Your task to perform on an android device: Is it going to rain tomorrow? Image 0: 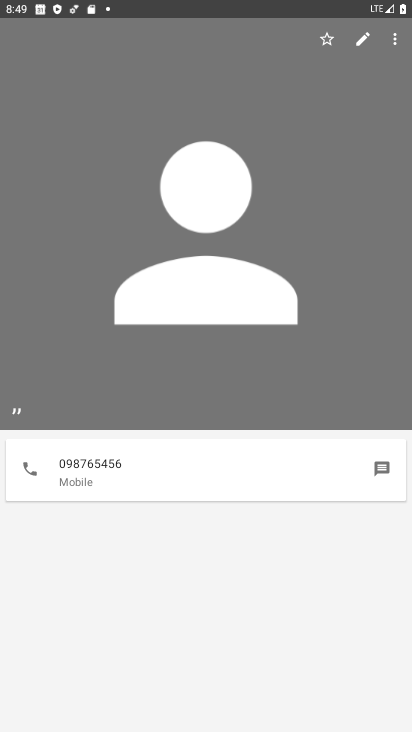
Step 0: press home button
Your task to perform on an android device: Is it going to rain tomorrow? Image 1: 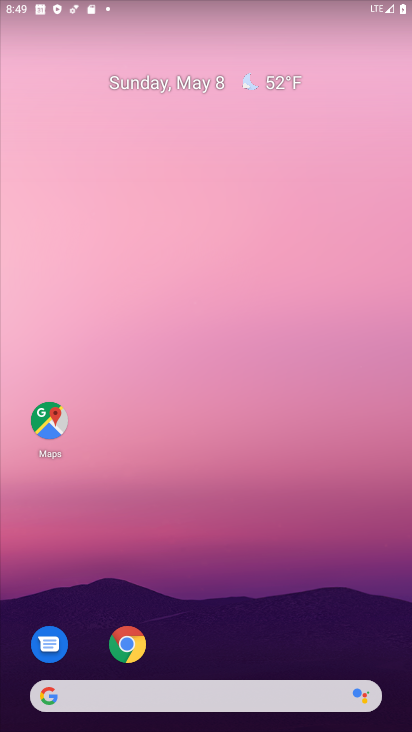
Step 1: drag from (213, 627) to (324, 246)
Your task to perform on an android device: Is it going to rain tomorrow? Image 2: 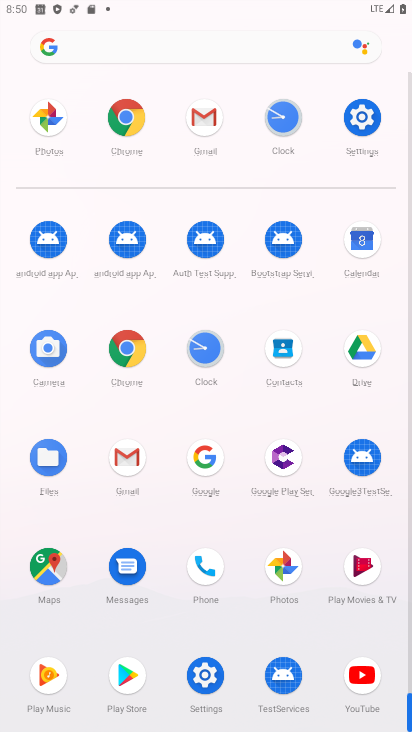
Step 2: click (207, 26)
Your task to perform on an android device: Is it going to rain tomorrow? Image 3: 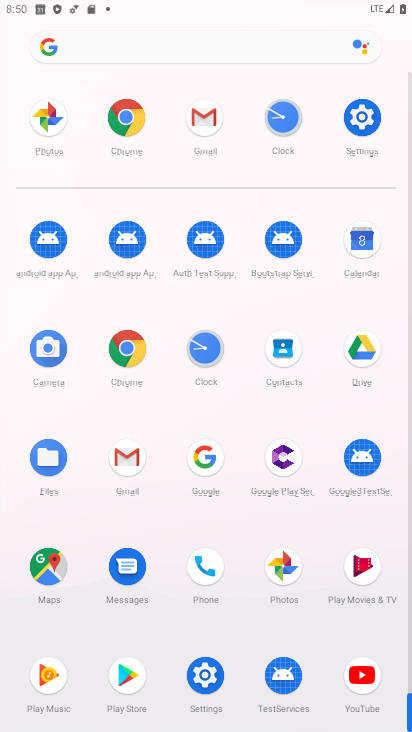
Step 3: click (197, 41)
Your task to perform on an android device: Is it going to rain tomorrow? Image 4: 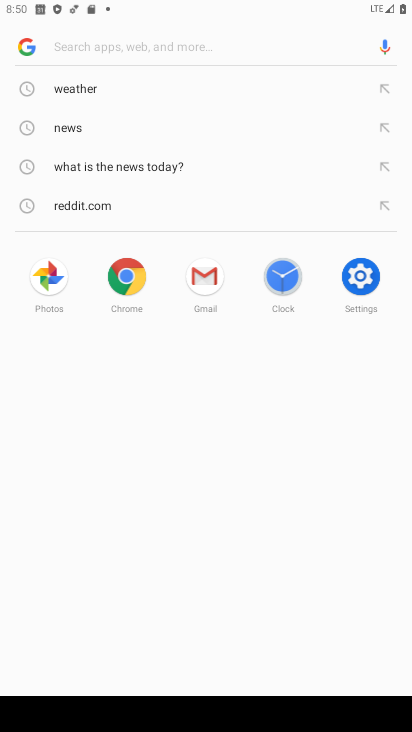
Step 4: type "rain tomorrow"
Your task to perform on an android device: Is it going to rain tomorrow? Image 5: 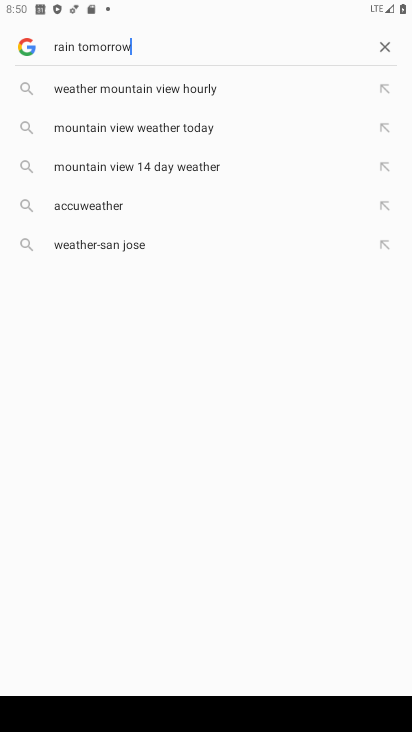
Step 5: click (193, 43)
Your task to perform on an android device: Is it going to rain tomorrow? Image 6: 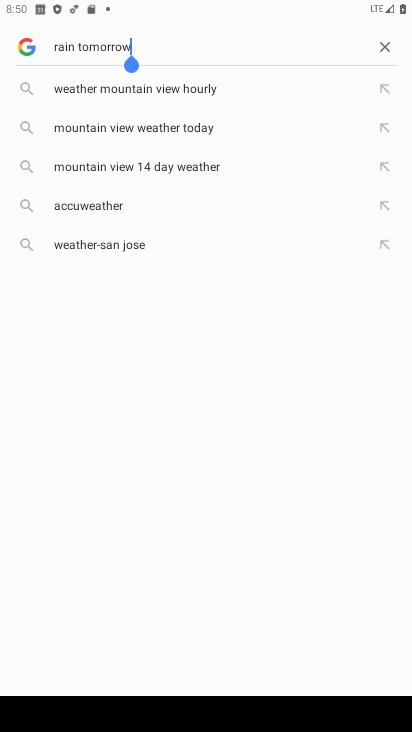
Step 6: click (208, 50)
Your task to perform on an android device: Is it going to rain tomorrow? Image 7: 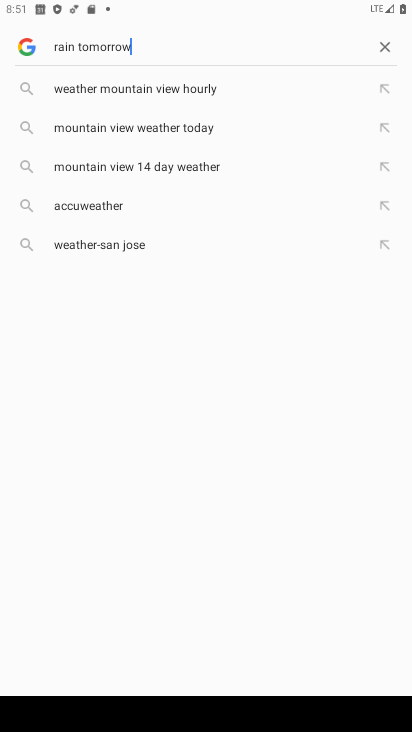
Step 7: click (198, 77)
Your task to perform on an android device: Is it going to rain tomorrow? Image 8: 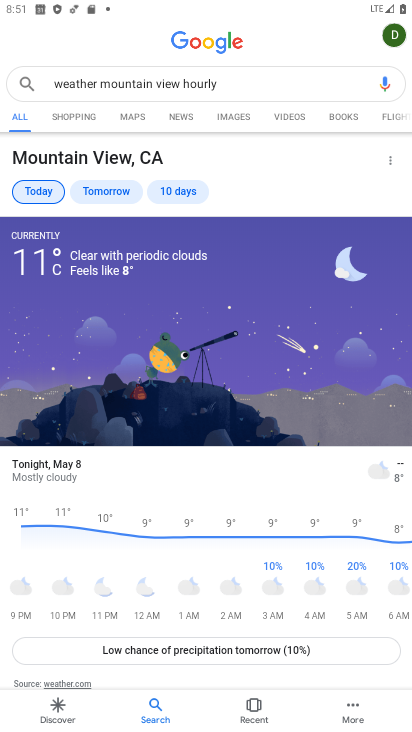
Step 8: task complete